Your task to perform on an android device: turn off picture-in-picture Image 0: 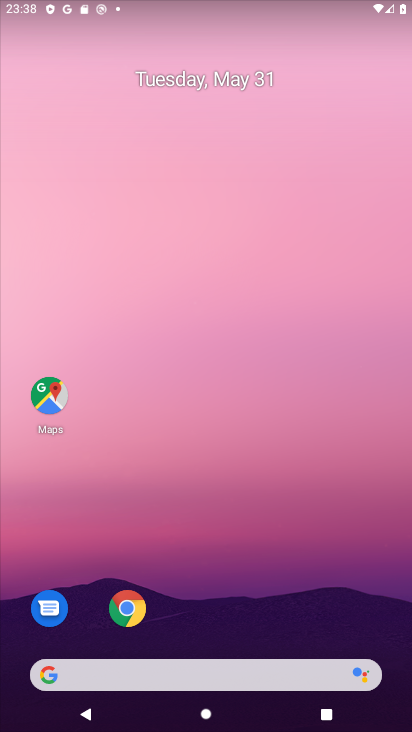
Step 0: click (130, 599)
Your task to perform on an android device: turn off picture-in-picture Image 1: 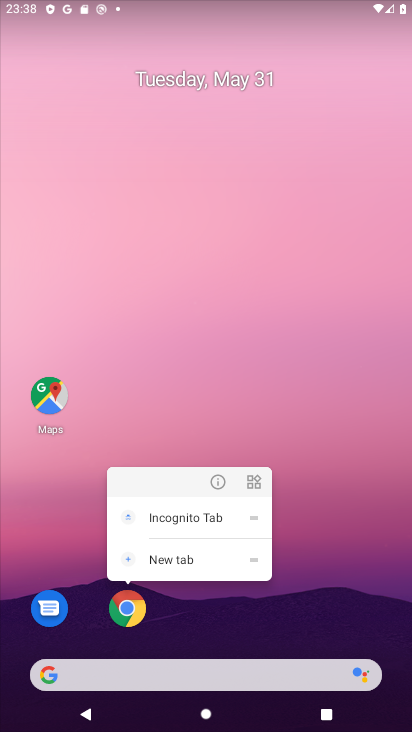
Step 1: click (216, 478)
Your task to perform on an android device: turn off picture-in-picture Image 2: 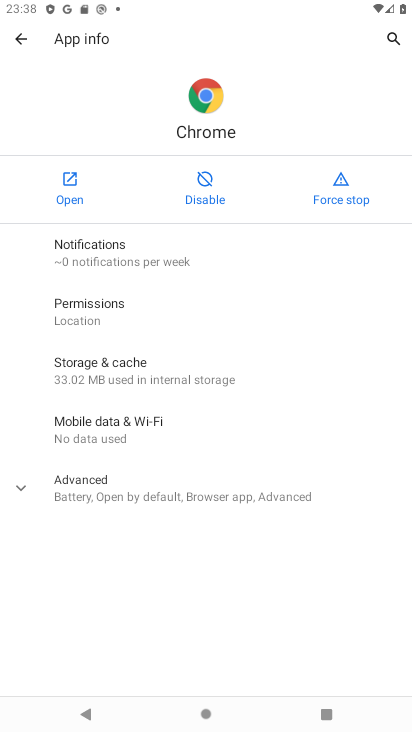
Step 2: click (110, 483)
Your task to perform on an android device: turn off picture-in-picture Image 3: 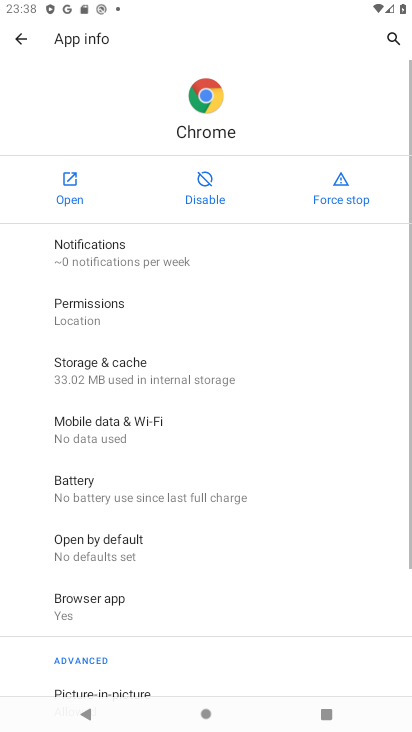
Step 3: drag from (169, 606) to (157, 450)
Your task to perform on an android device: turn off picture-in-picture Image 4: 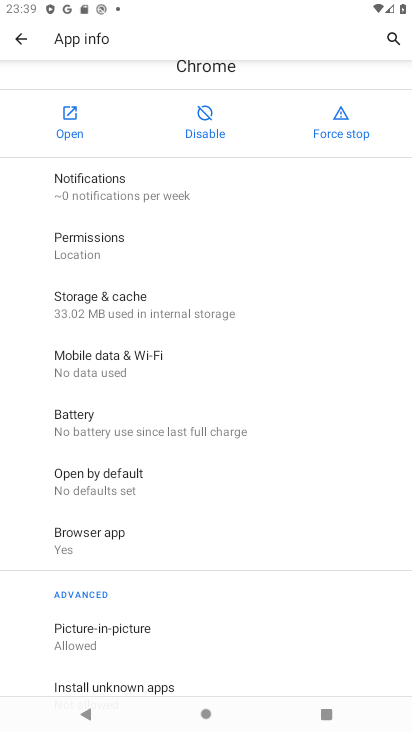
Step 4: click (96, 636)
Your task to perform on an android device: turn off picture-in-picture Image 5: 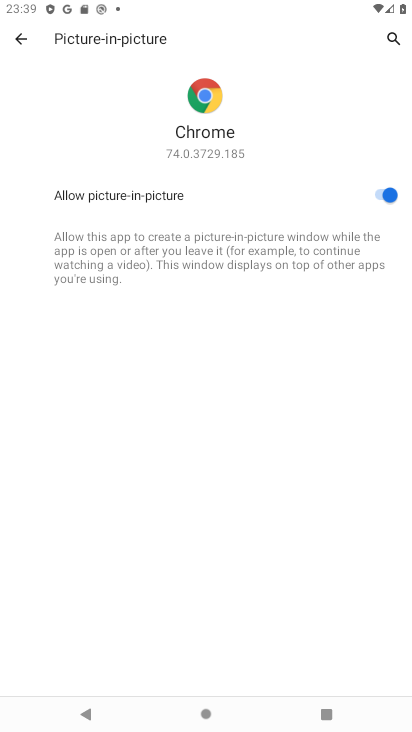
Step 5: click (299, 184)
Your task to perform on an android device: turn off picture-in-picture Image 6: 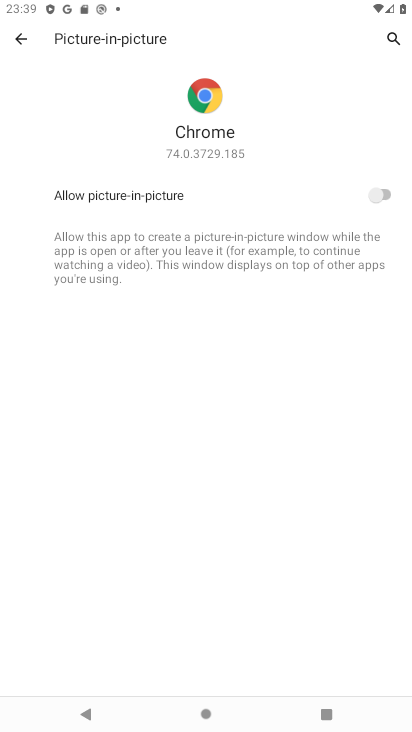
Step 6: task complete